Your task to perform on an android device: open app "Gboard" Image 0: 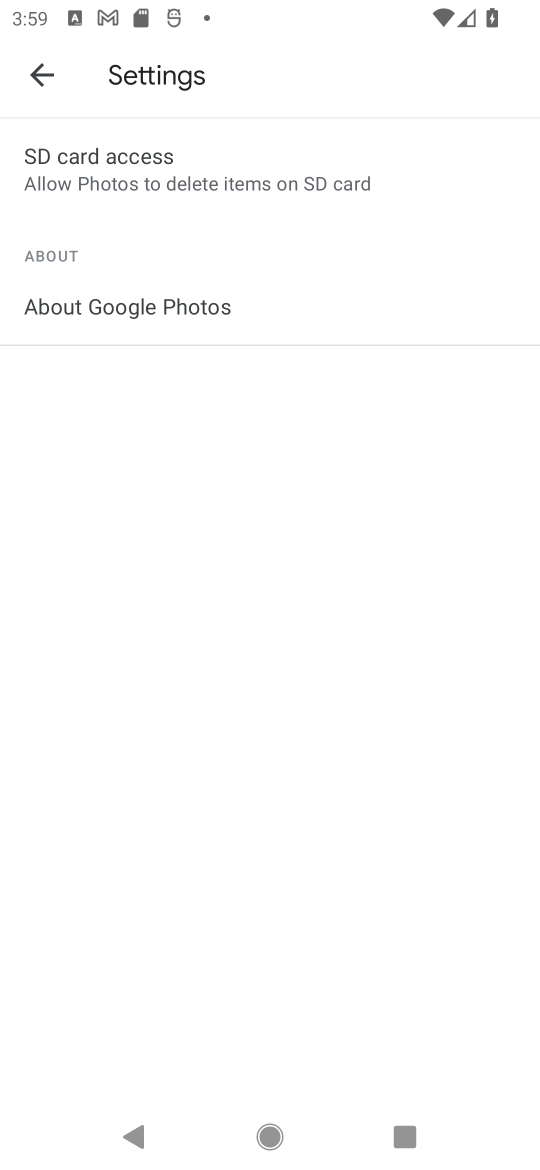
Step 0: press home button
Your task to perform on an android device: open app "Gboard" Image 1: 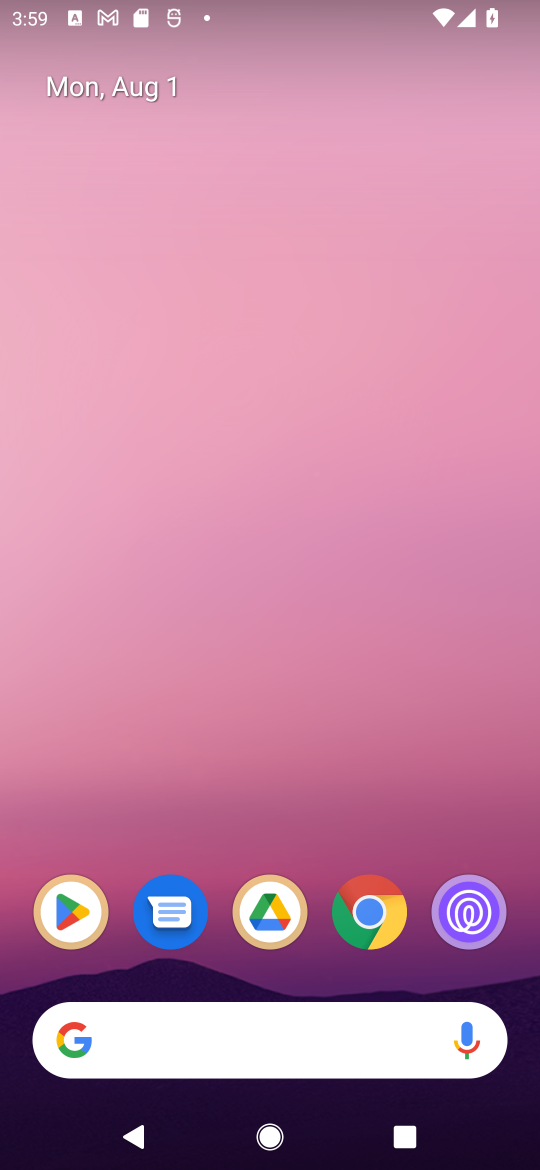
Step 1: click (80, 912)
Your task to perform on an android device: open app "Gboard" Image 2: 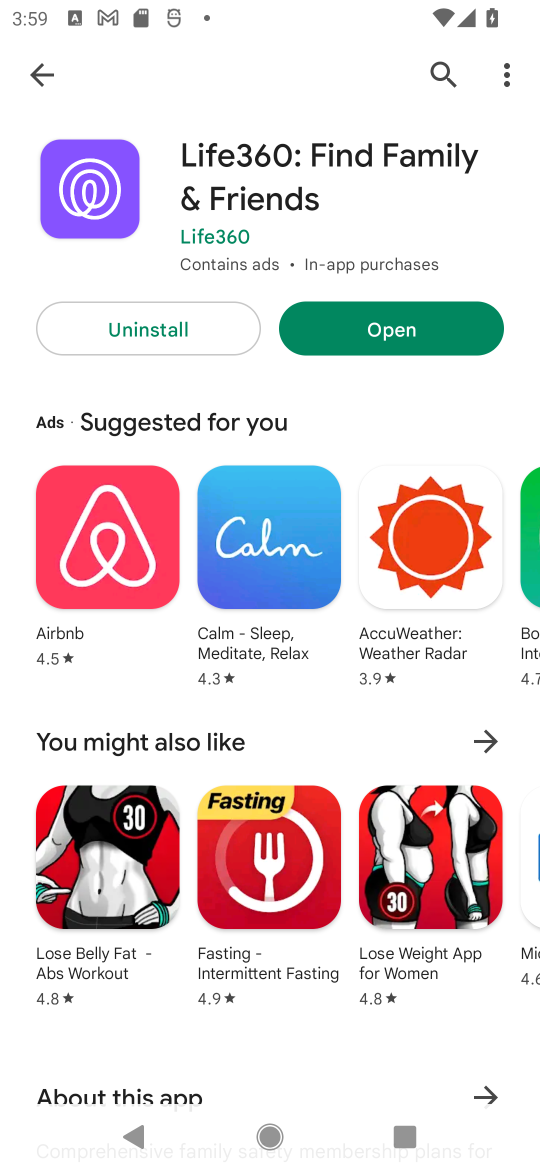
Step 2: click (432, 78)
Your task to perform on an android device: open app "Gboard" Image 3: 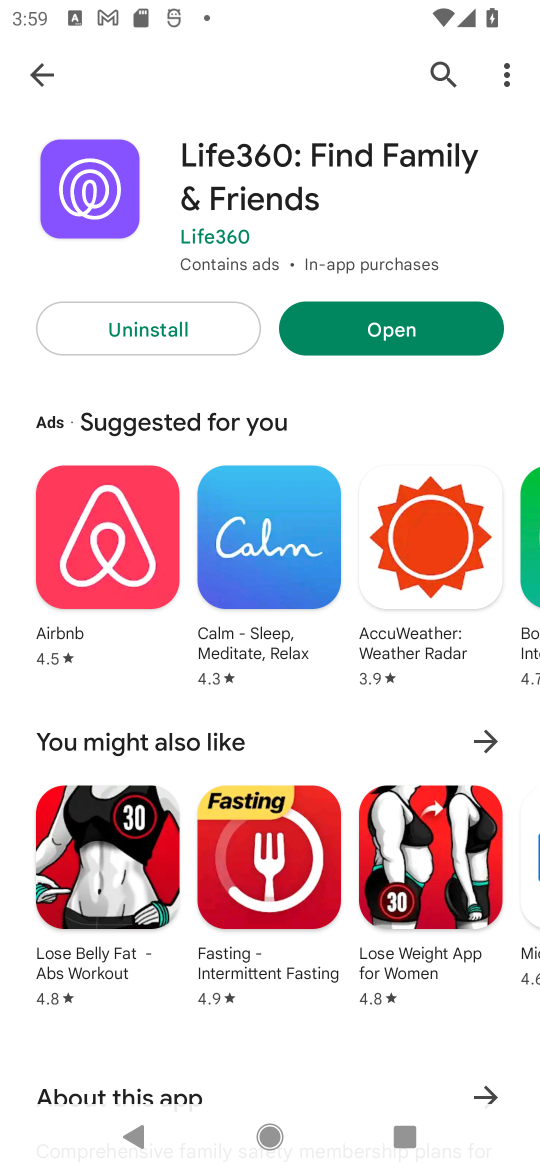
Step 3: click (458, 76)
Your task to perform on an android device: open app "Gboard" Image 4: 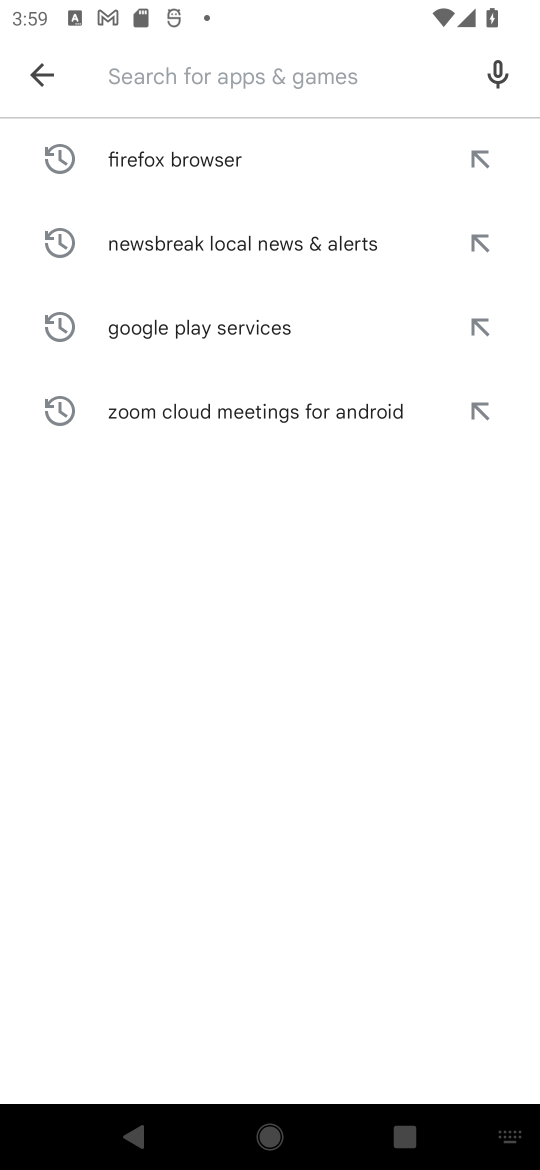
Step 4: type "Gboard"
Your task to perform on an android device: open app "Gboard" Image 5: 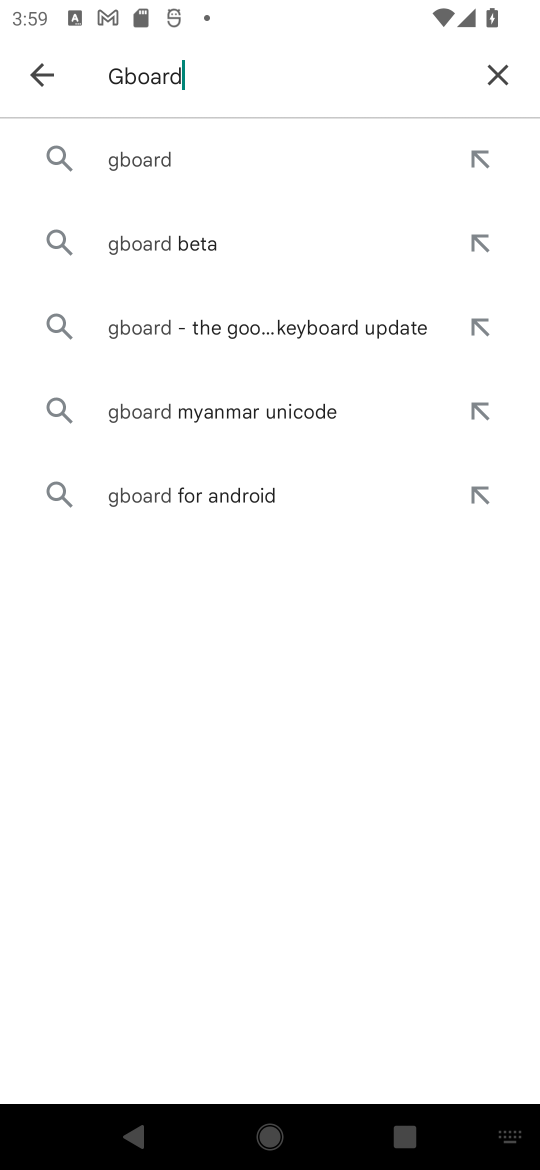
Step 5: click (122, 163)
Your task to perform on an android device: open app "Gboard" Image 6: 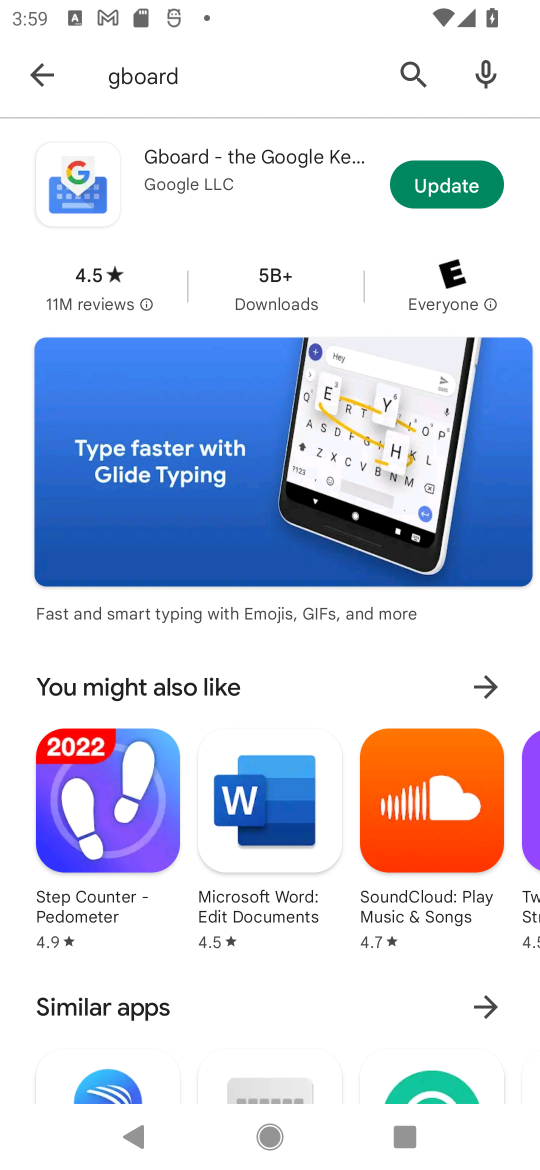
Step 6: click (94, 170)
Your task to perform on an android device: open app "Gboard" Image 7: 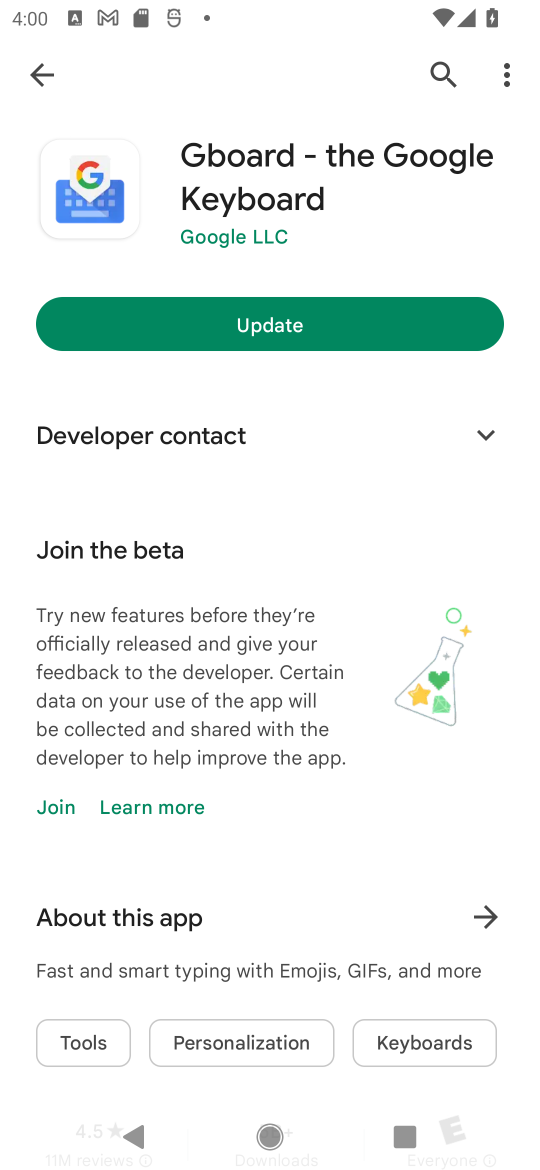
Step 7: click (94, 170)
Your task to perform on an android device: open app "Gboard" Image 8: 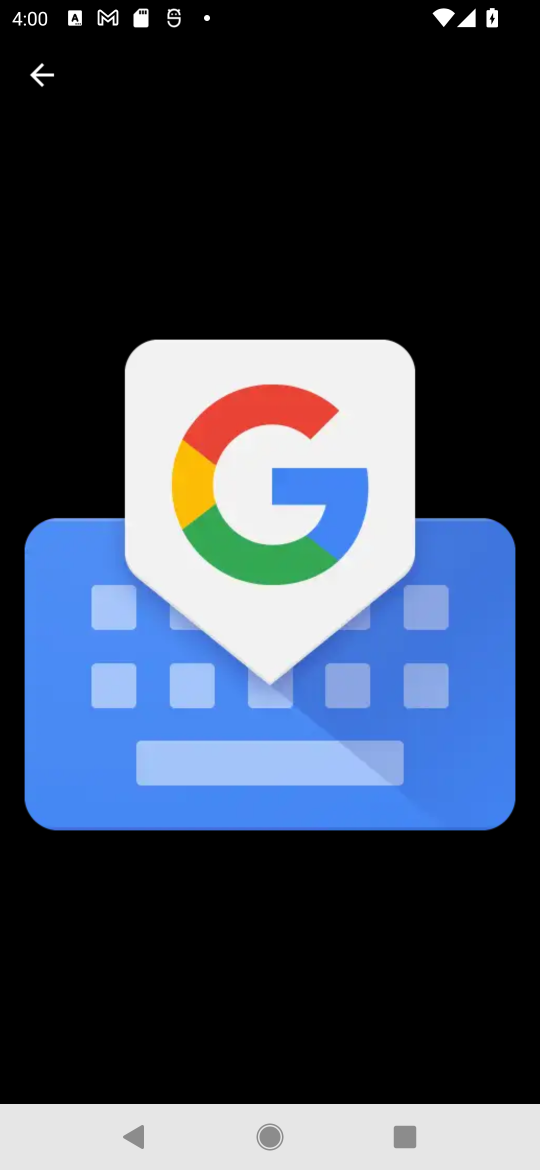
Step 8: click (48, 90)
Your task to perform on an android device: open app "Gboard" Image 9: 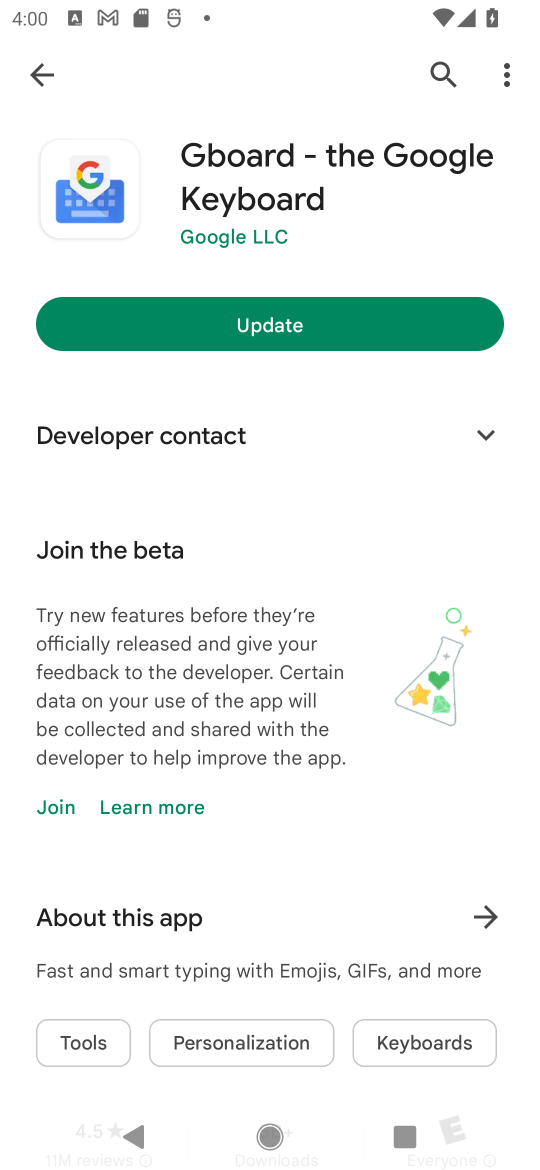
Step 9: click (239, 178)
Your task to perform on an android device: open app "Gboard" Image 10: 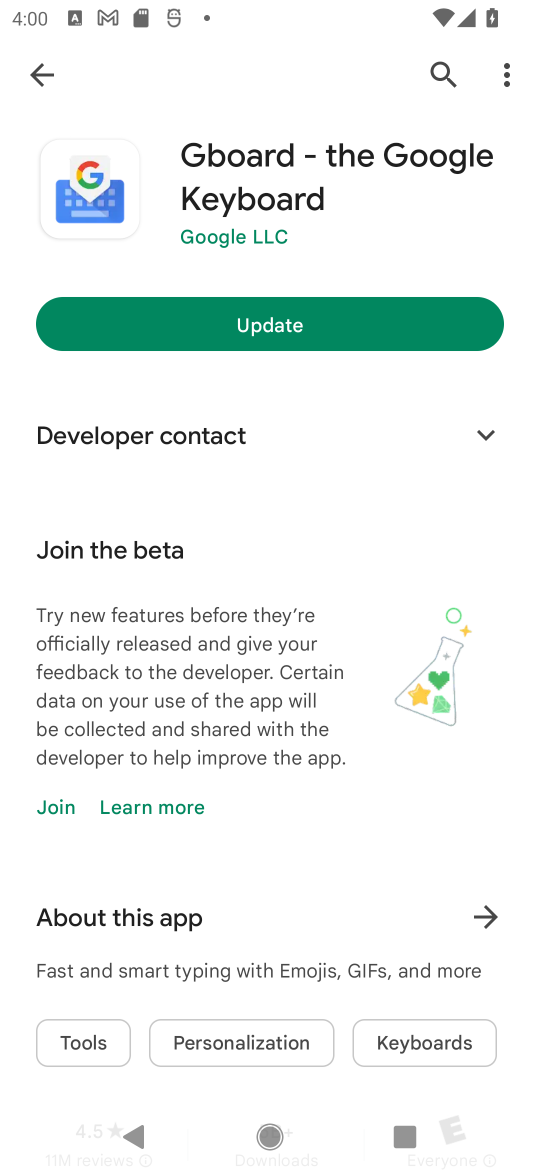
Step 10: click (280, 194)
Your task to perform on an android device: open app "Gboard" Image 11: 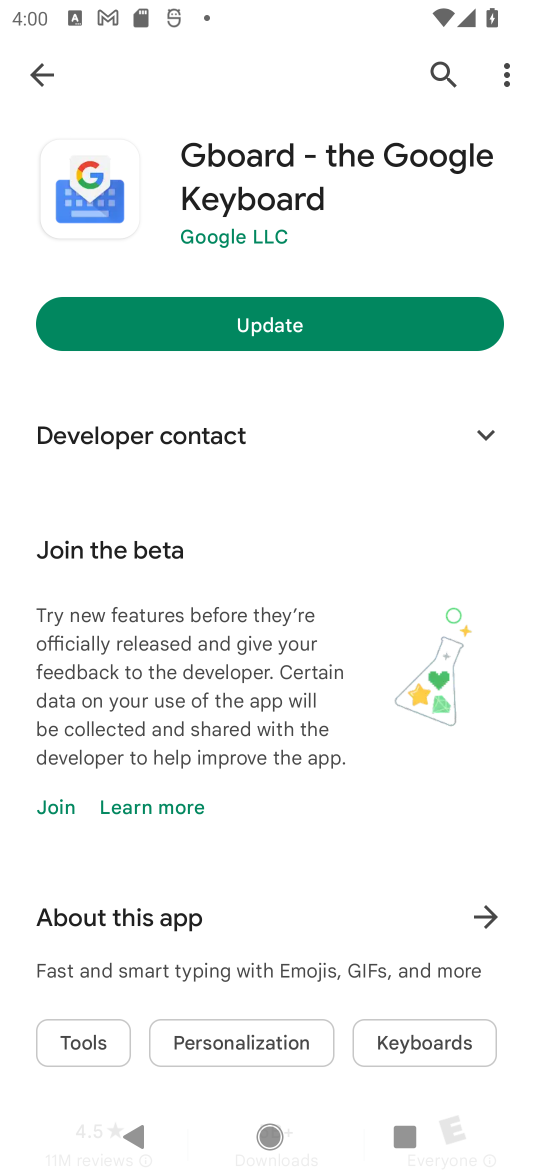
Step 11: click (278, 162)
Your task to perform on an android device: open app "Gboard" Image 12: 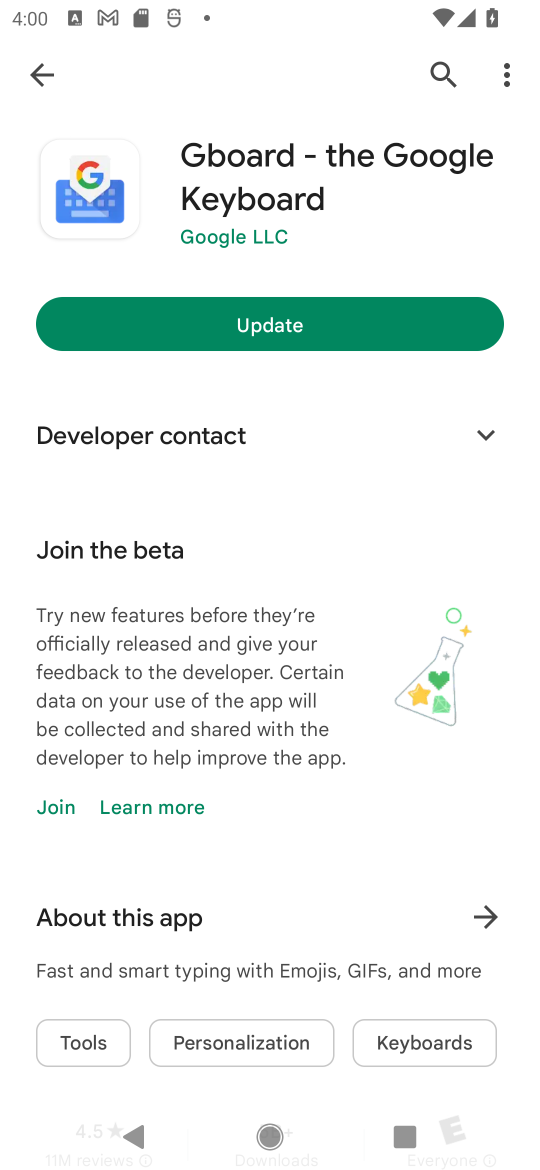
Step 12: task complete